Your task to perform on an android device: change the clock display to analog Image 0: 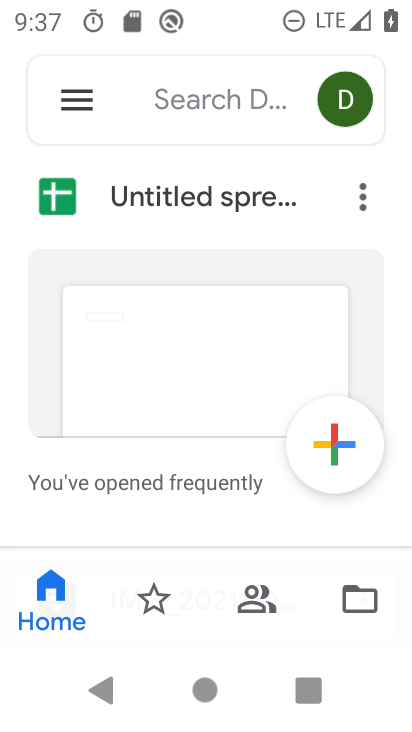
Step 0: press home button
Your task to perform on an android device: change the clock display to analog Image 1: 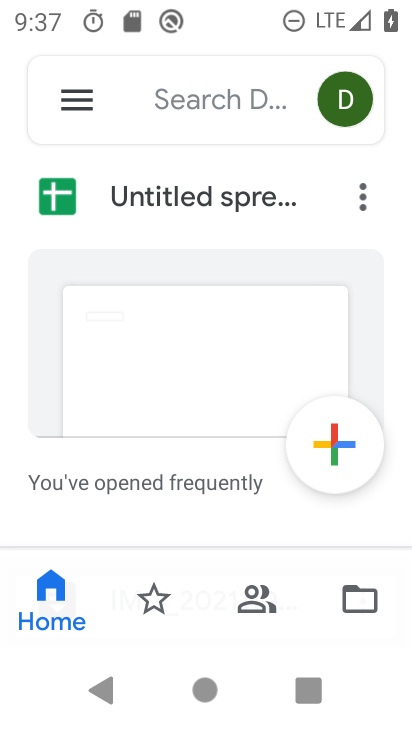
Step 1: press home button
Your task to perform on an android device: change the clock display to analog Image 2: 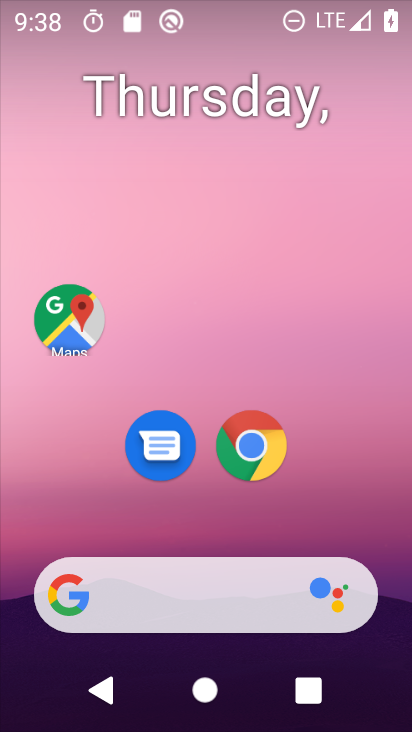
Step 2: drag from (217, 528) to (251, 209)
Your task to perform on an android device: change the clock display to analog Image 3: 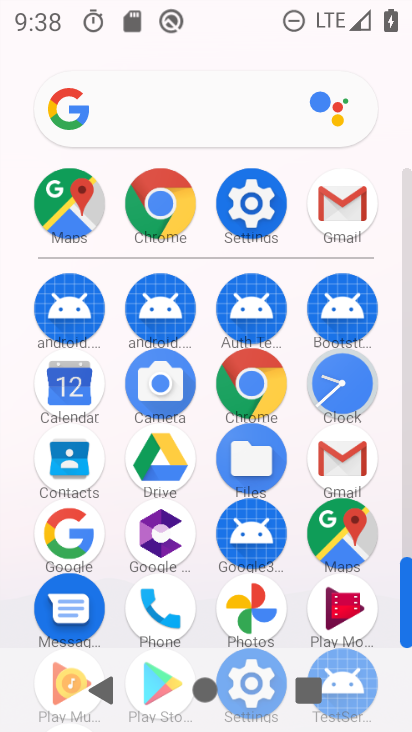
Step 3: click (350, 372)
Your task to perform on an android device: change the clock display to analog Image 4: 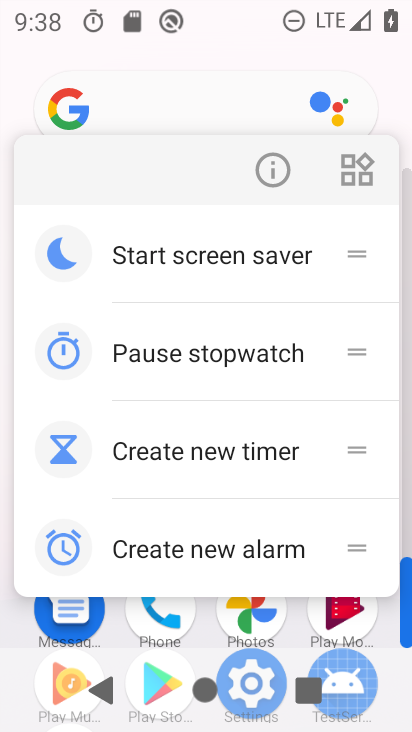
Step 4: click (285, 171)
Your task to perform on an android device: change the clock display to analog Image 5: 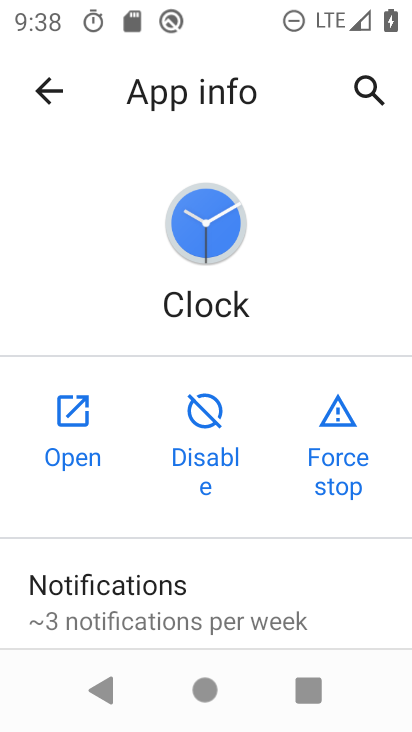
Step 5: click (78, 420)
Your task to perform on an android device: change the clock display to analog Image 6: 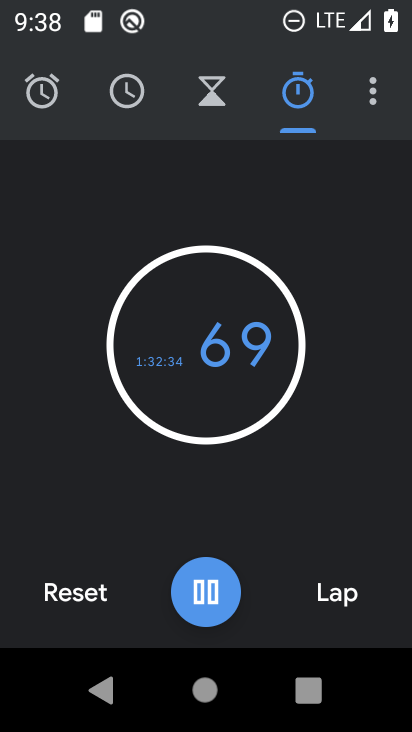
Step 6: click (363, 95)
Your task to perform on an android device: change the clock display to analog Image 7: 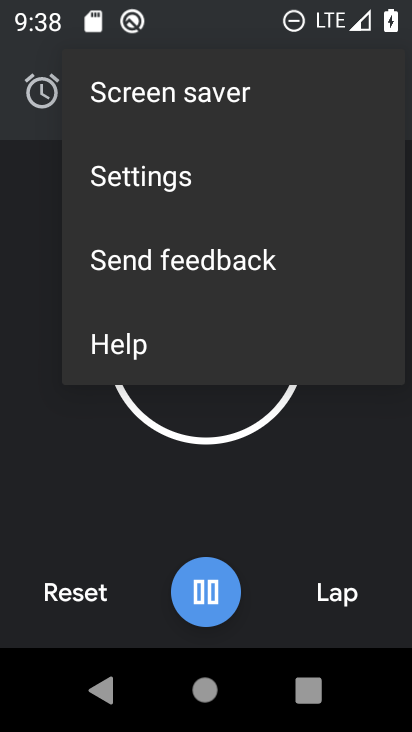
Step 7: click (182, 188)
Your task to perform on an android device: change the clock display to analog Image 8: 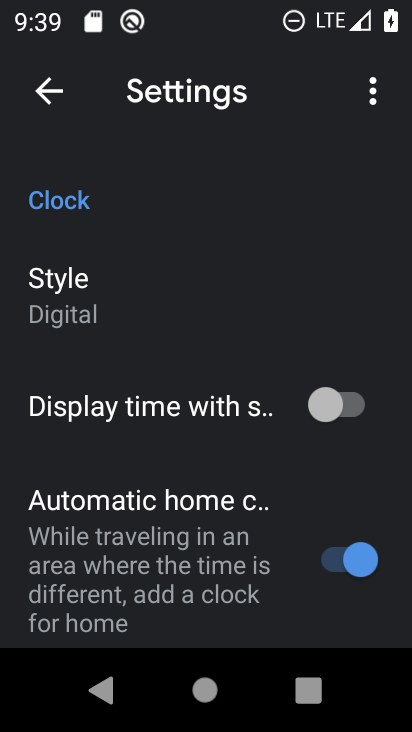
Step 8: drag from (208, 579) to (208, 144)
Your task to perform on an android device: change the clock display to analog Image 9: 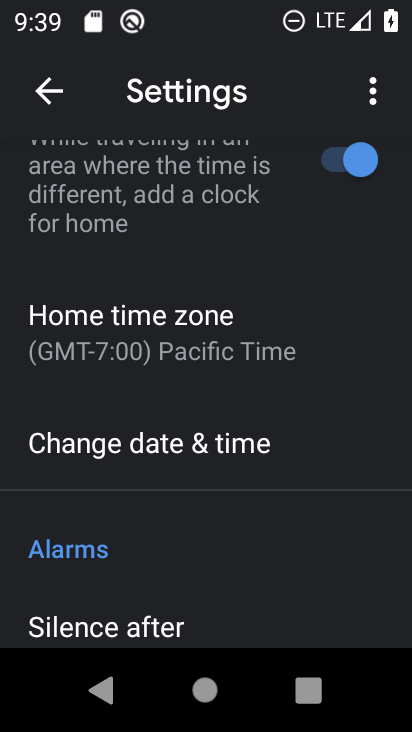
Step 9: drag from (187, 239) to (308, 727)
Your task to perform on an android device: change the clock display to analog Image 10: 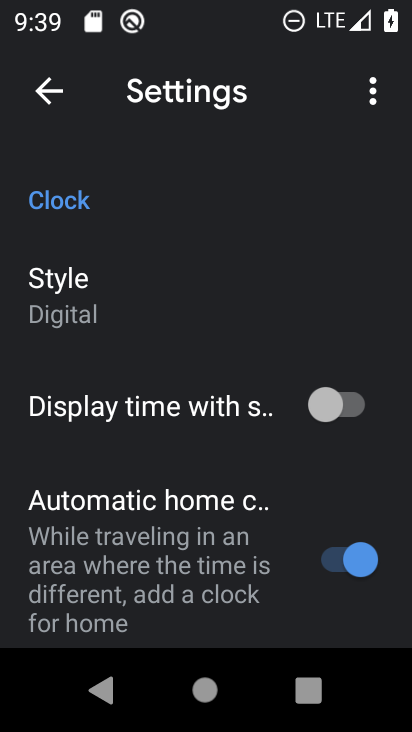
Step 10: click (19, 275)
Your task to perform on an android device: change the clock display to analog Image 11: 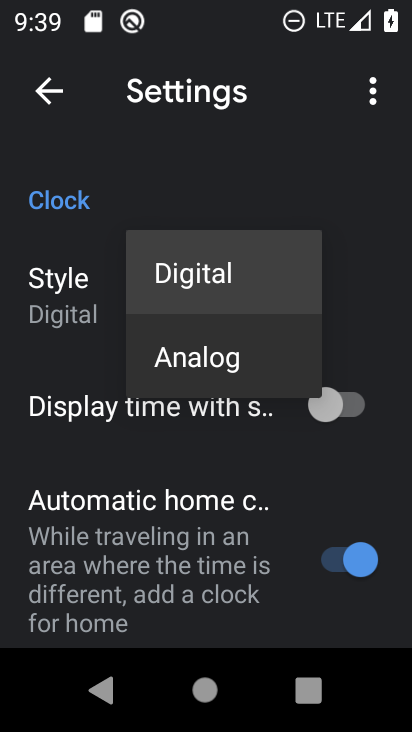
Step 11: click (243, 365)
Your task to perform on an android device: change the clock display to analog Image 12: 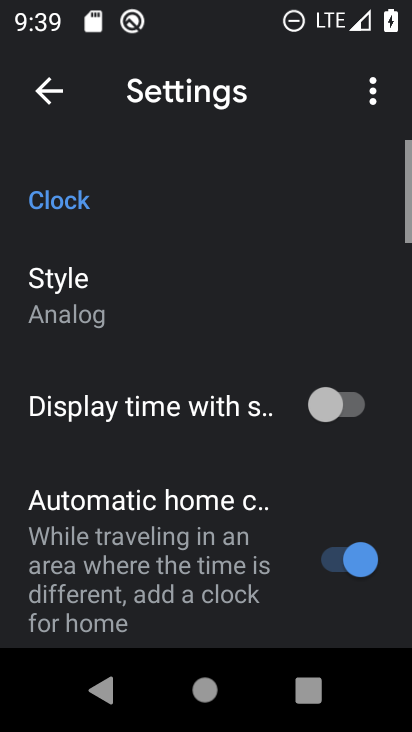
Step 12: task complete